Your task to perform on an android device: check out phone information Image 0: 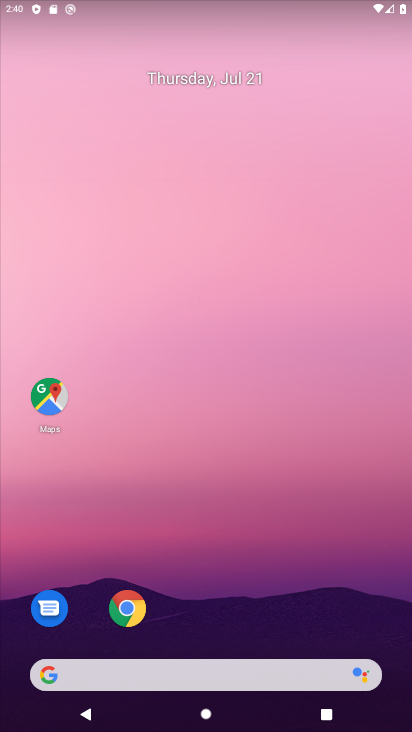
Step 0: drag from (206, 670) to (155, 160)
Your task to perform on an android device: check out phone information Image 1: 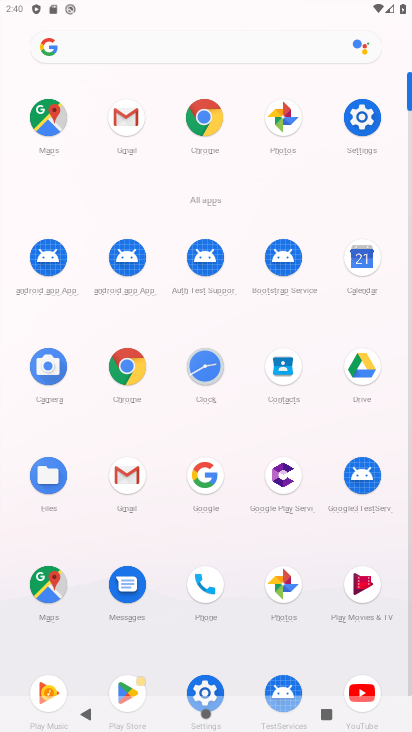
Step 1: click (365, 126)
Your task to perform on an android device: check out phone information Image 2: 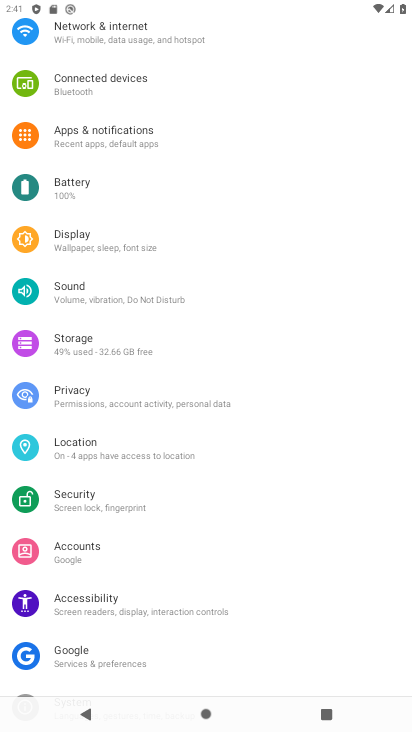
Step 2: drag from (155, 625) to (92, 49)
Your task to perform on an android device: check out phone information Image 3: 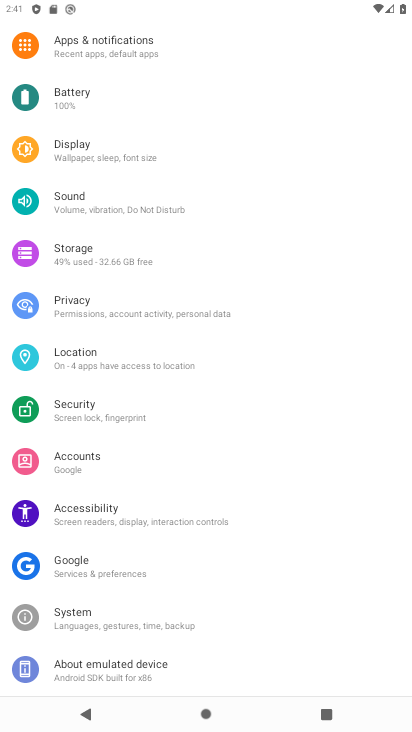
Step 3: click (166, 672)
Your task to perform on an android device: check out phone information Image 4: 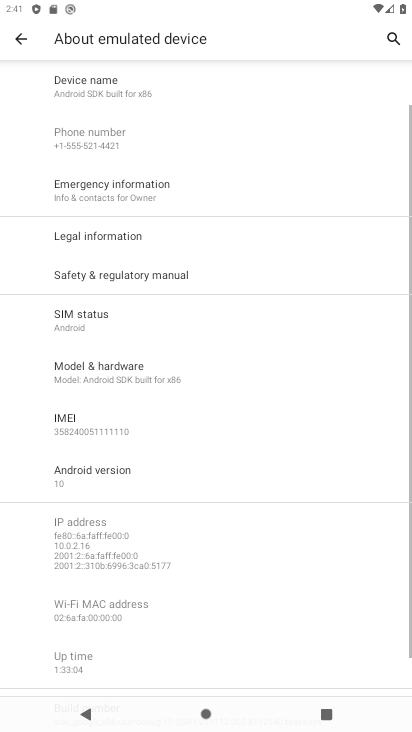
Step 4: task complete